Your task to perform on an android device: Turn off the flashlight Image 0: 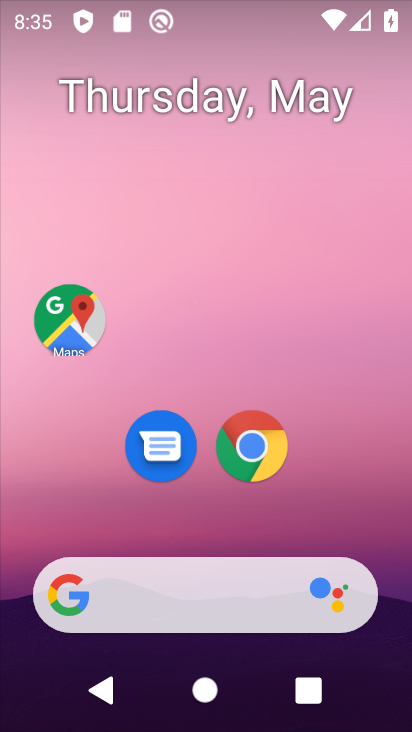
Step 0: drag from (236, 5) to (284, 460)
Your task to perform on an android device: Turn off the flashlight Image 1: 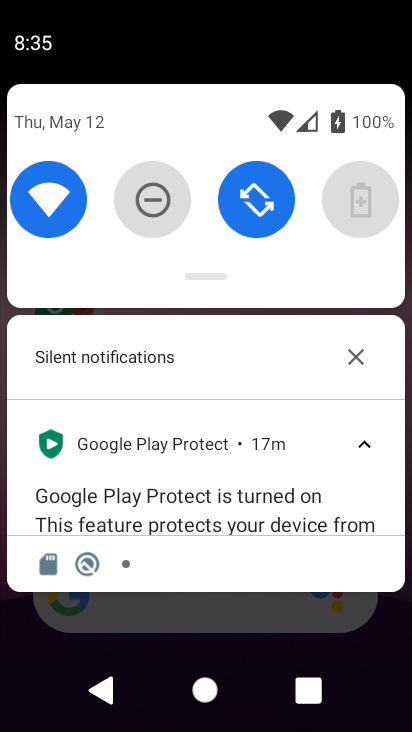
Step 1: drag from (201, 275) to (227, 572)
Your task to perform on an android device: Turn off the flashlight Image 2: 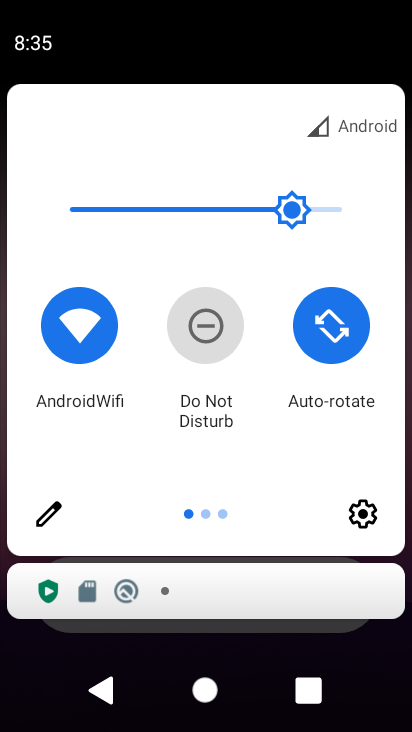
Step 2: click (45, 511)
Your task to perform on an android device: Turn off the flashlight Image 3: 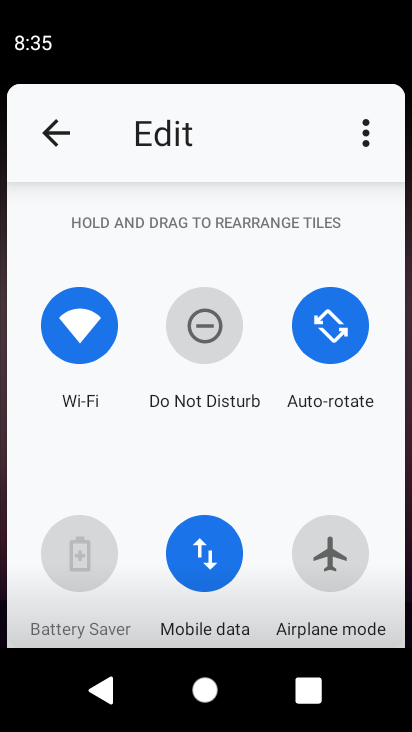
Step 3: task complete